Your task to perform on an android device: turn on airplane mode Image 0: 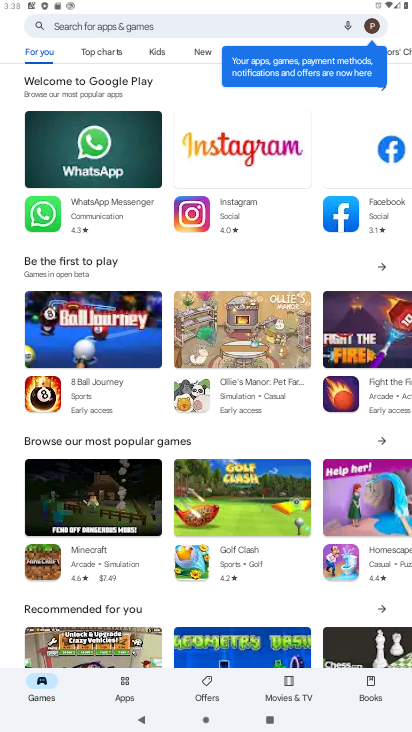
Step 0: press home button
Your task to perform on an android device: turn on airplane mode Image 1: 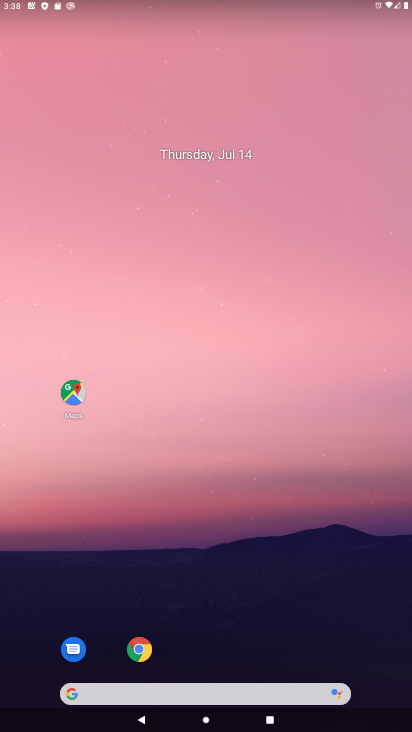
Step 1: drag from (214, 638) to (302, 207)
Your task to perform on an android device: turn on airplane mode Image 2: 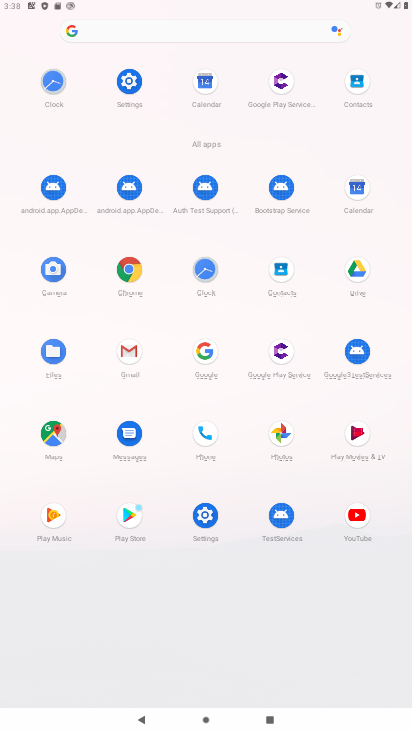
Step 2: click (198, 526)
Your task to perform on an android device: turn on airplane mode Image 3: 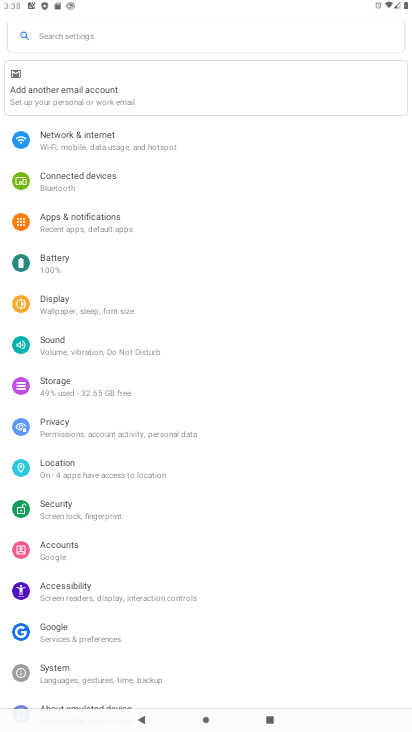
Step 3: click (145, 144)
Your task to perform on an android device: turn on airplane mode Image 4: 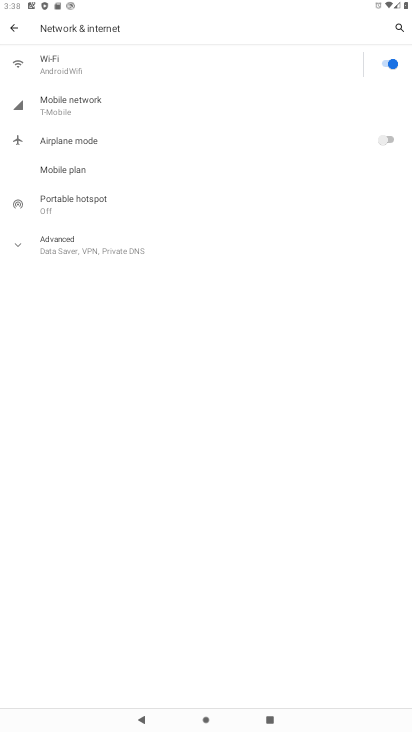
Step 4: click (354, 144)
Your task to perform on an android device: turn on airplane mode Image 5: 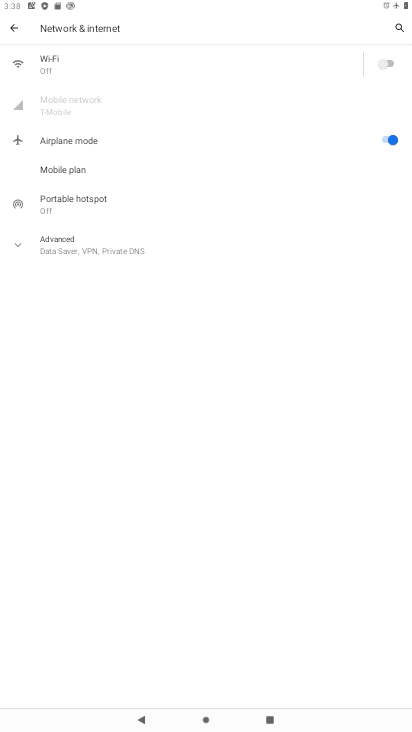
Step 5: task complete